Your task to perform on an android device: Show me popular videos on Youtube Image 0: 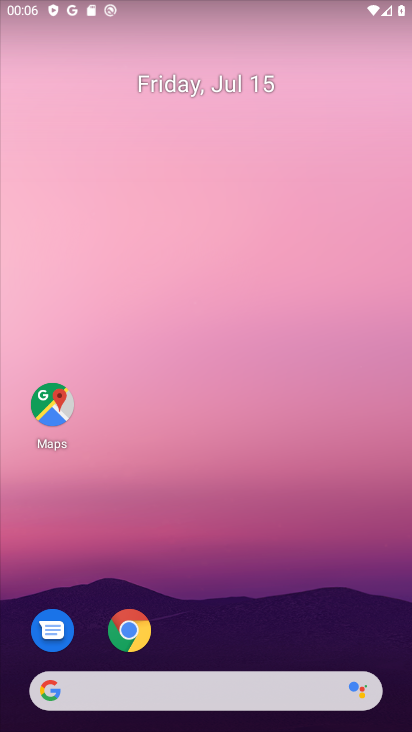
Step 0: drag from (296, 625) to (257, 258)
Your task to perform on an android device: Show me popular videos on Youtube Image 1: 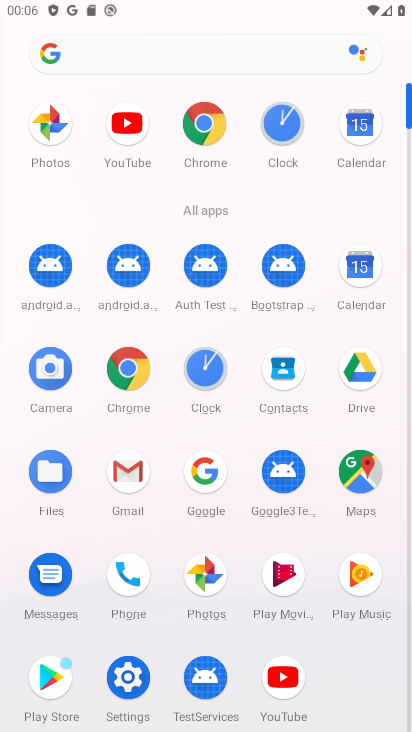
Step 1: click (125, 130)
Your task to perform on an android device: Show me popular videos on Youtube Image 2: 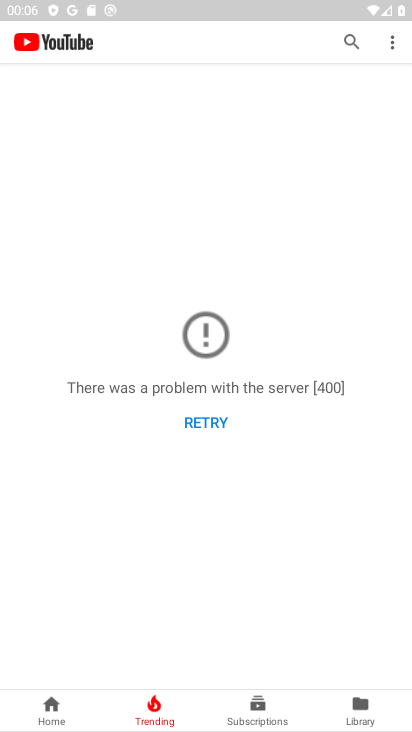
Step 2: task complete